Your task to perform on an android device: turn on showing notifications on the lock screen Image 0: 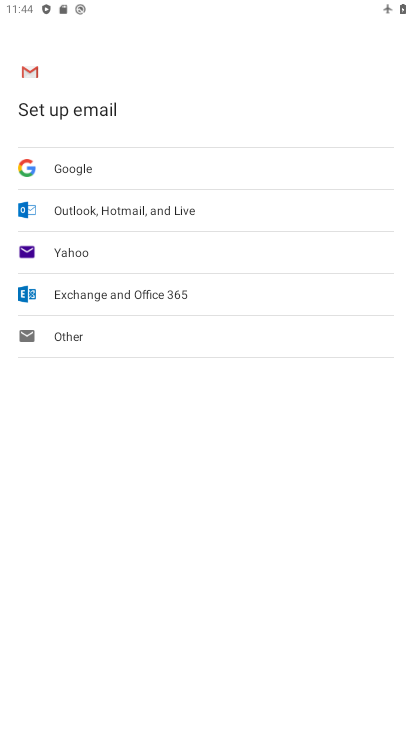
Step 0: press home button
Your task to perform on an android device: turn on showing notifications on the lock screen Image 1: 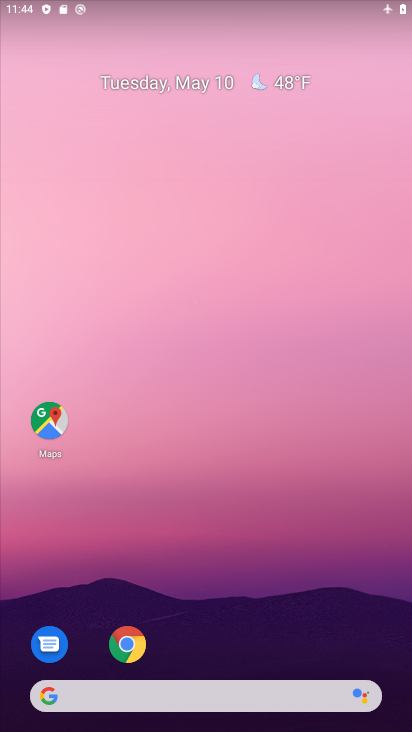
Step 1: drag from (215, 640) to (249, 214)
Your task to perform on an android device: turn on showing notifications on the lock screen Image 2: 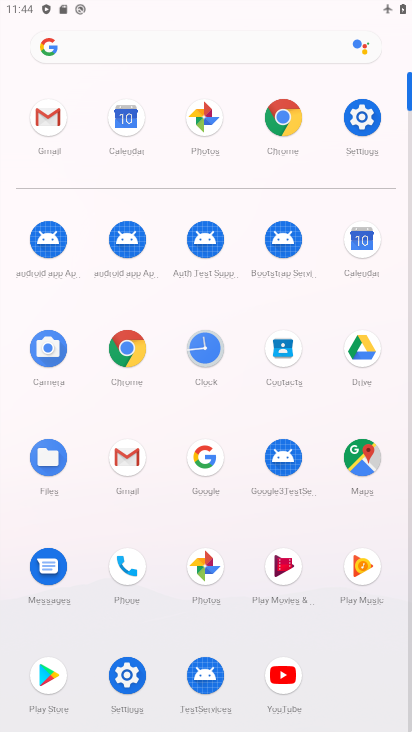
Step 2: click (355, 147)
Your task to perform on an android device: turn on showing notifications on the lock screen Image 3: 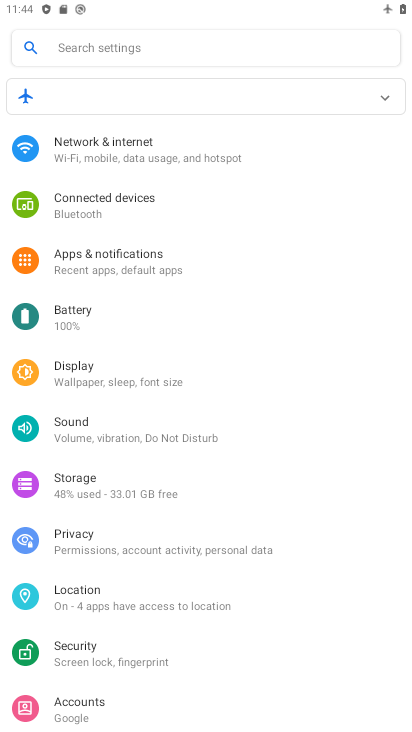
Step 3: click (134, 267)
Your task to perform on an android device: turn on showing notifications on the lock screen Image 4: 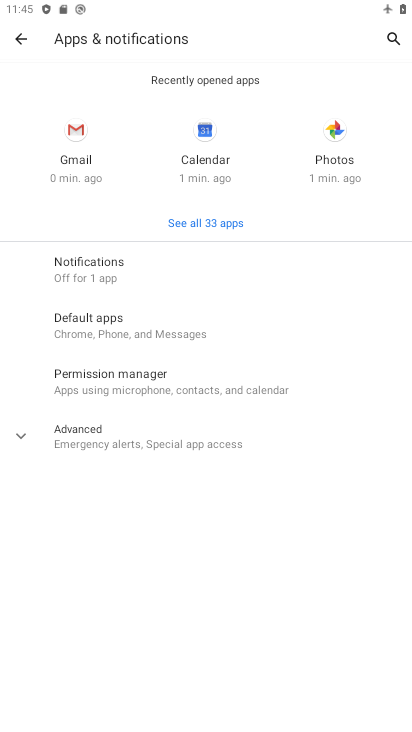
Step 4: click (125, 268)
Your task to perform on an android device: turn on showing notifications on the lock screen Image 5: 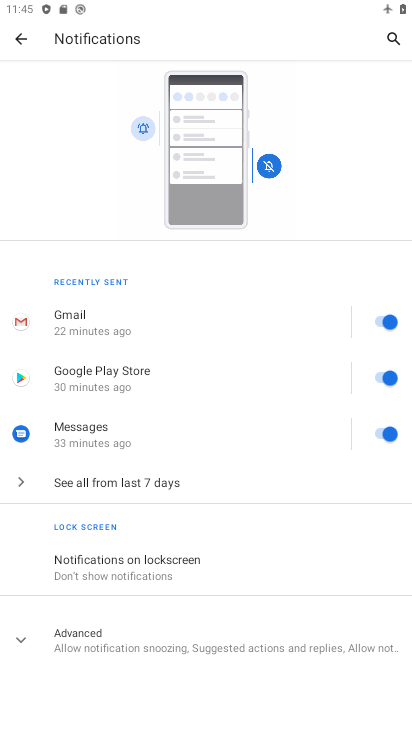
Step 5: click (184, 569)
Your task to perform on an android device: turn on showing notifications on the lock screen Image 6: 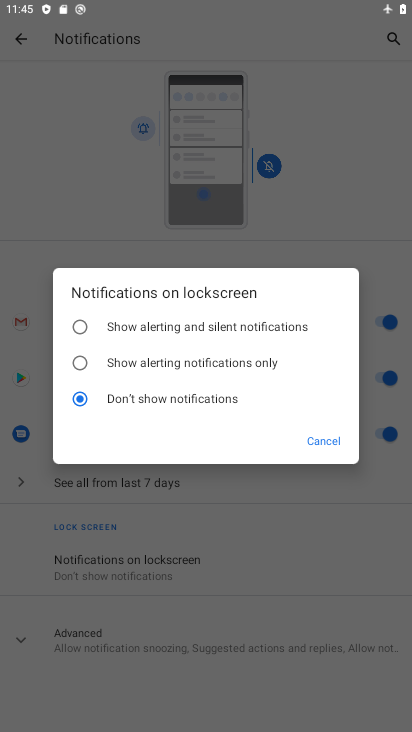
Step 6: click (120, 330)
Your task to perform on an android device: turn on showing notifications on the lock screen Image 7: 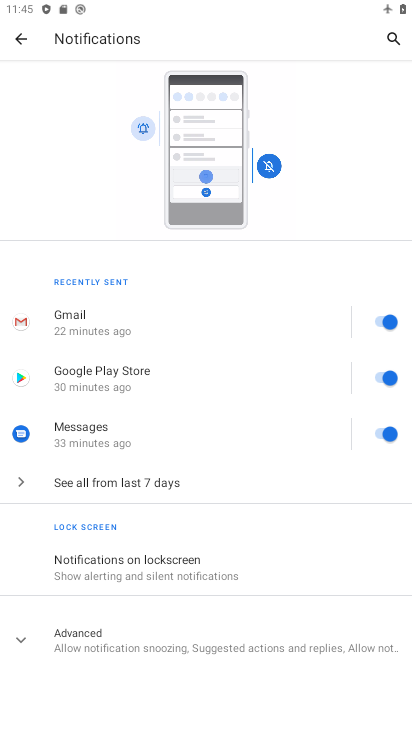
Step 7: task complete